Your task to perform on an android device: change notification settings in the gmail app Image 0: 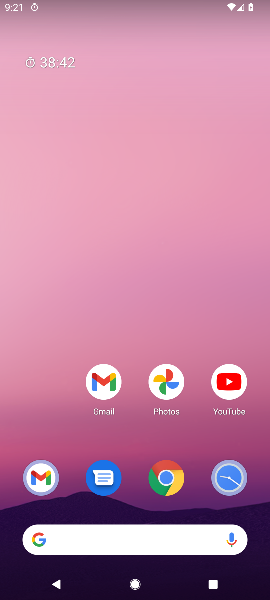
Step 0: press home button
Your task to perform on an android device: change notification settings in the gmail app Image 1: 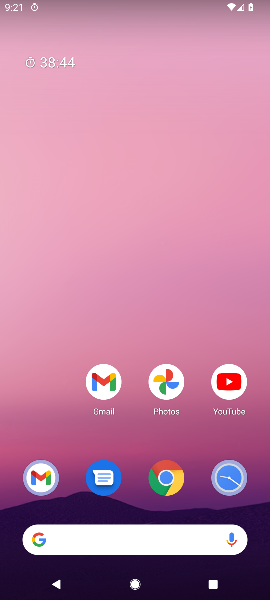
Step 1: press home button
Your task to perform on an android device: change notification settings in the gmail app Image 2: 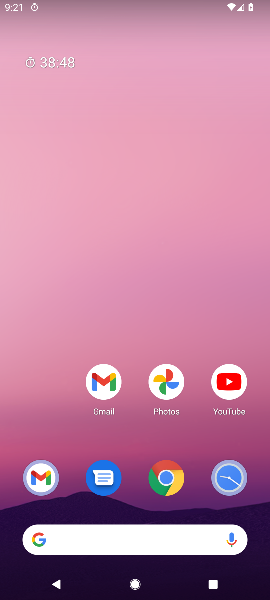
Step 2: drag from (48, 426) to (103, 39)
Your task to perform on an android device: change notification settings in the gmail app Image 3: 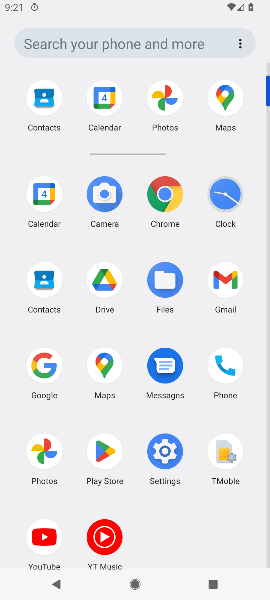
Step 3: click (227, 280)
Your task to perform on an android device: change notification settings in the gmail app Image 4: 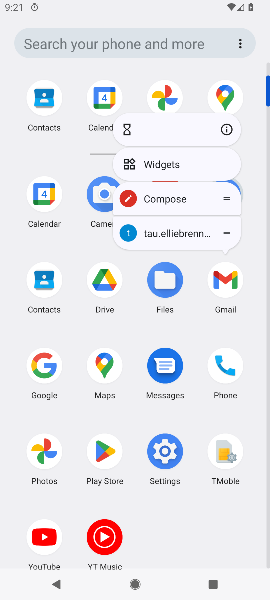
Step 4: click (224, 128)
Your task to perform on an android device: change notification settings in the gmail app Image 5: 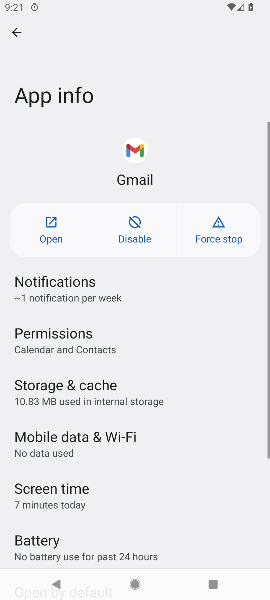
Step 5: click (81, 284)
Your task to perform on an android device: change notification settings in the gmail app Image 6: 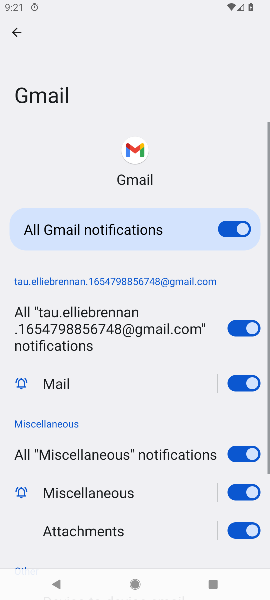
Step 6: click (171, 224)
Your task to perform on an android device: change notification settings in the gmail app Image 7: 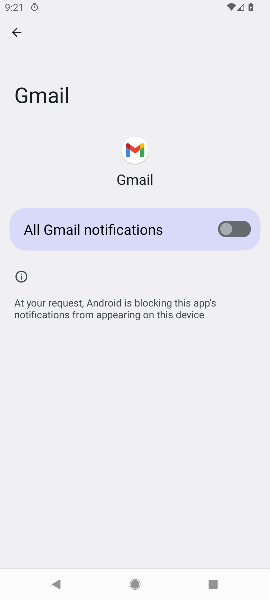
Step 7: task complete